Your task to perform on an android device: clear history in the chrome app Image 0: 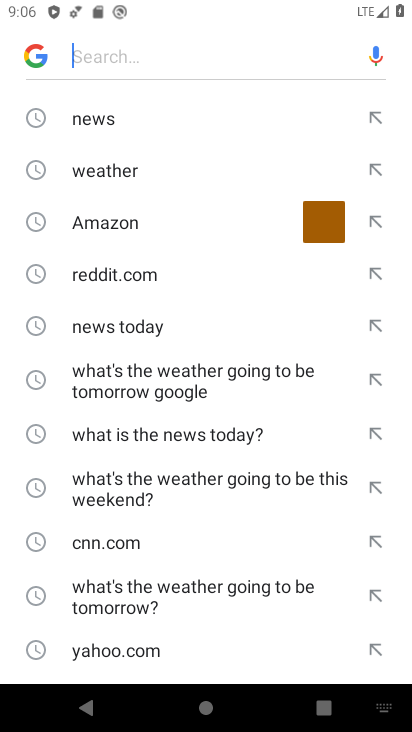
Step 0: press home button
Your task to perform on an android device: clear history in the chrome app Image 1: 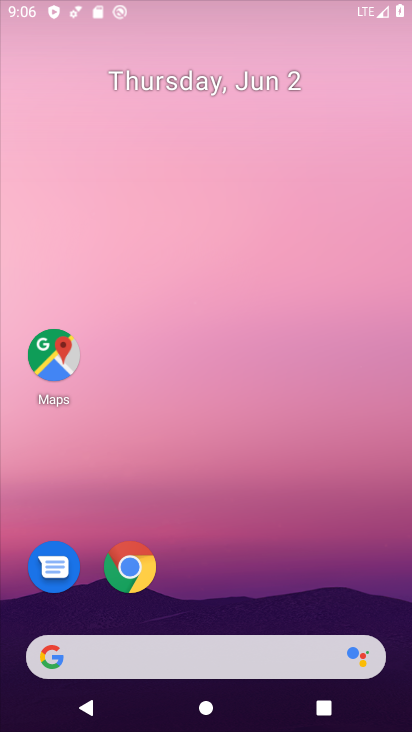
Step 1: drag from (323, 495) to (311, 96)
Your task to perform on an android device: clear history in the chrome app Image 2: 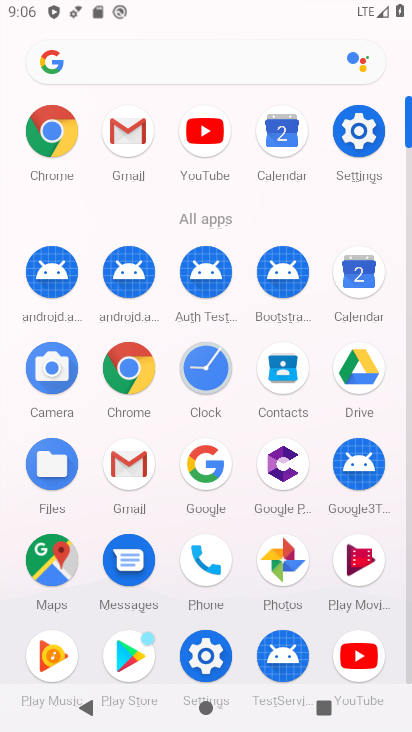
Step 2: click (96, 328)
Your task to perform on an android device: clear history in the chrome app Image 3: 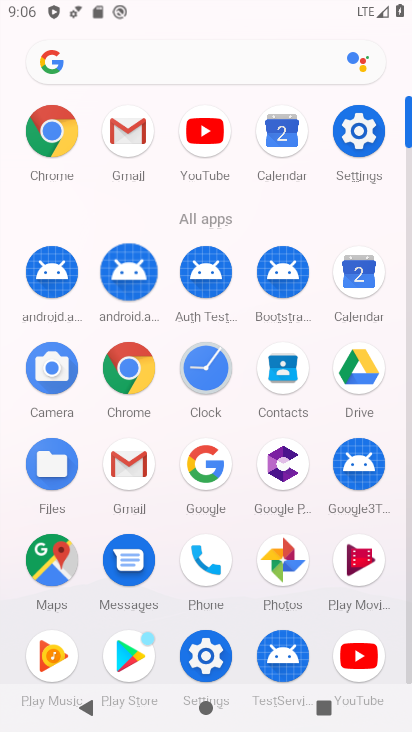
Step 3: click (145, 374)
Your task to perform on an android device: clear history in the chrome app Image 4: 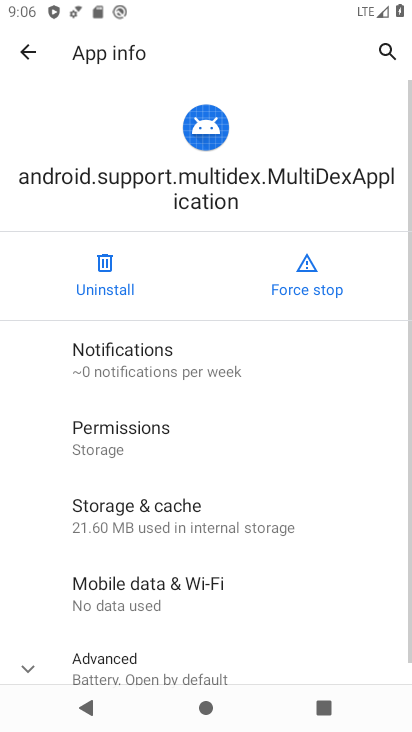
Step 4: task complete